Your task to perform on an android device: Open the phone app and click the voicemail tab. Image 0: 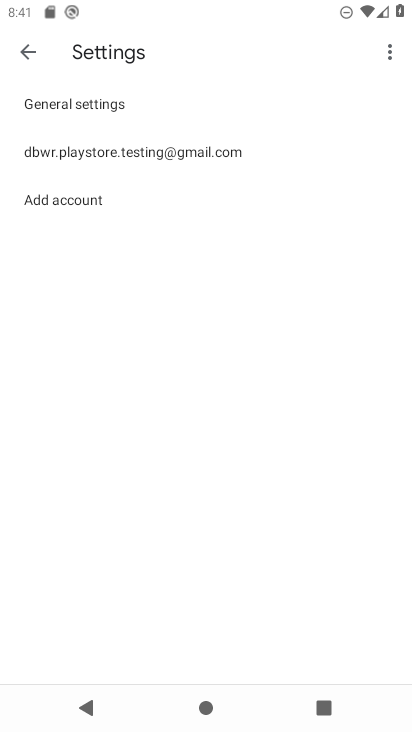
Step 0: press home button
Your task to perform on an android device: Open the phone app and click the voicemail tab. Image 1: 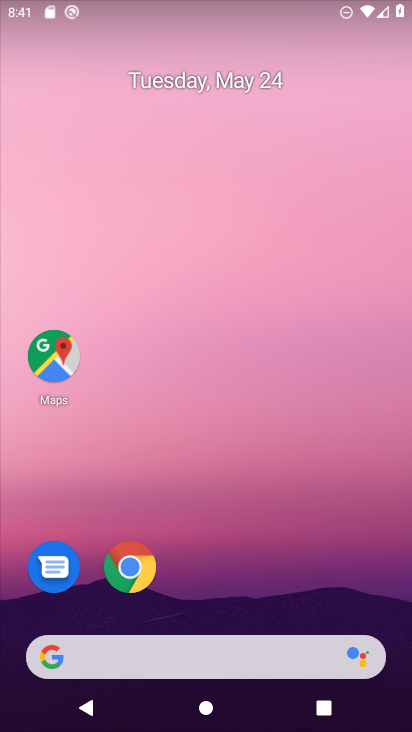
Step 1: drag from (151, 655) to (301, 96)
Your task to perform on an android device: Open the phone app and click the voicemail tab. Image 2: 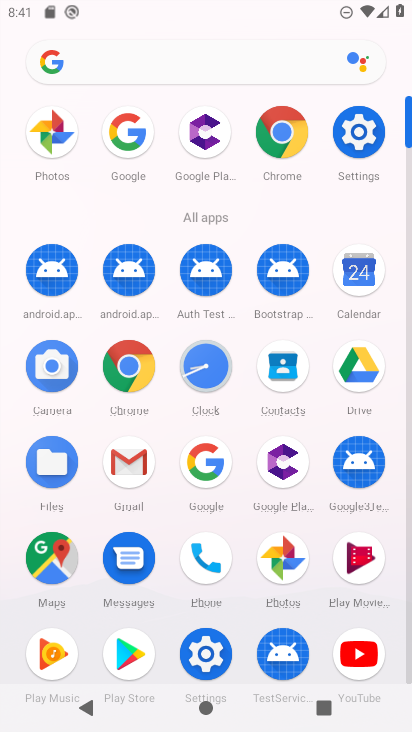
Step 2: click (199, 565)
Your task to perform on an android device: Open the phone app and click the voicemail tab. Image 3: 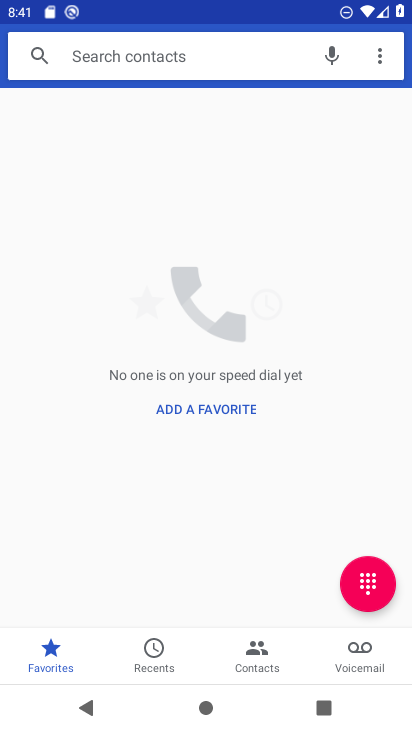
Step 3: click (363, 653)
Your task to perform on an android device: Open the phone app and click the voicemail tab. Image 4: 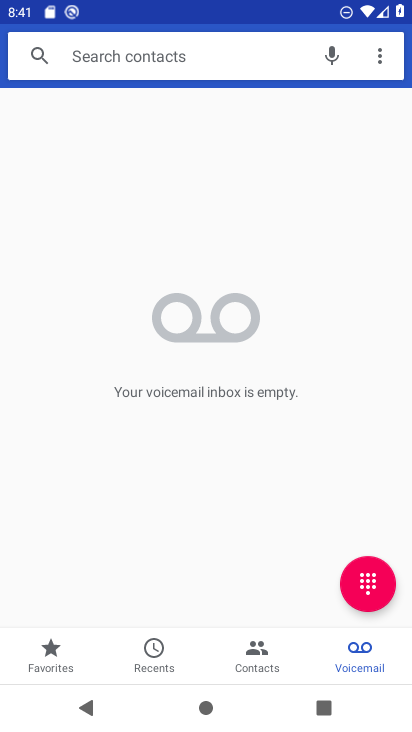
Step 4: task complete